Your task to perform on an android device: When is my next meeting? Image 0: 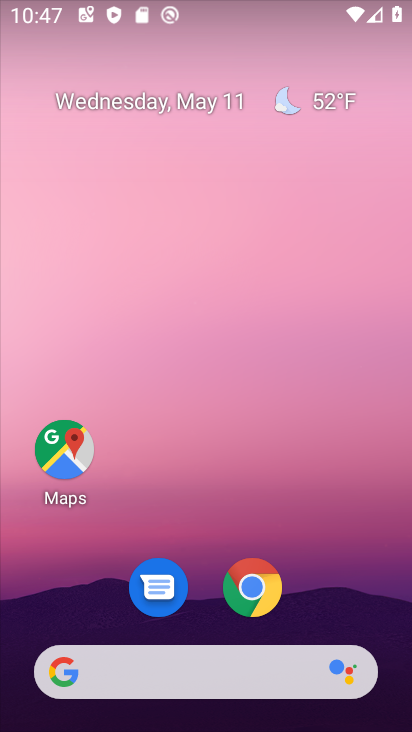
Step 0: drag from (210, 702) to (282, 262)
Your task to perform on an android device: When is my next meeting? Image 1: 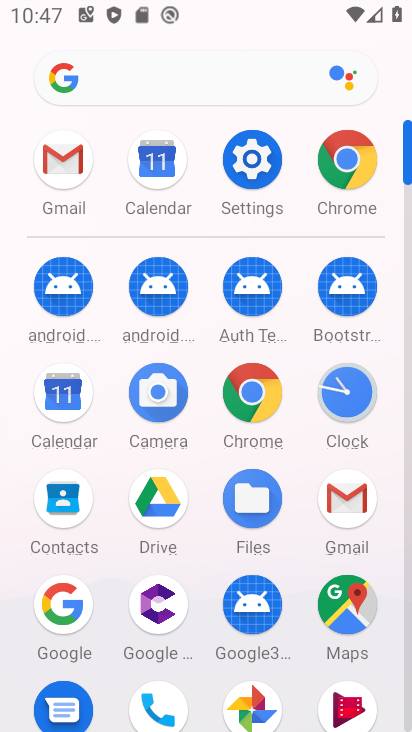
Step 1: click (69, 396)
Your task to perform on an android device: When is my next meeting? Image 2: 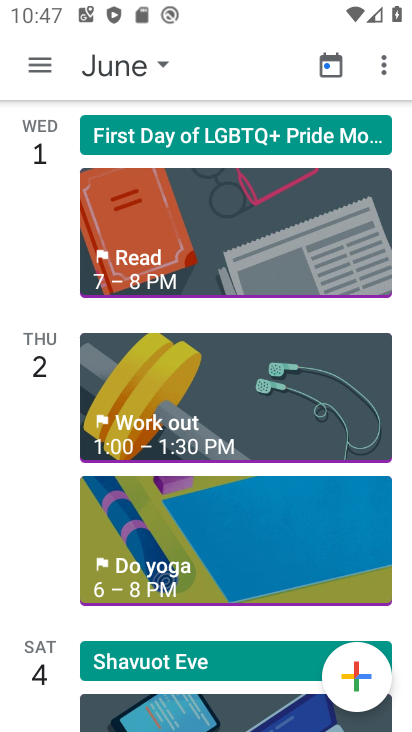
Step 2: click (43, 75)
Your task to perform on an android device: When is my next meeting? Image 3: 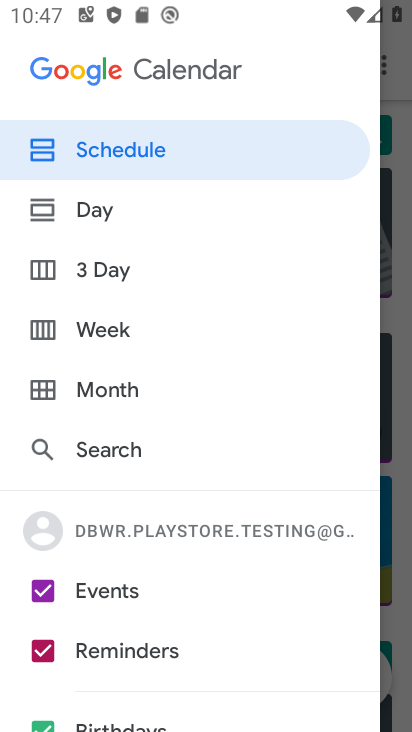
Step 3: click (124, 388)
Your task to perform on an android device: When is my next meeting? Image 4: 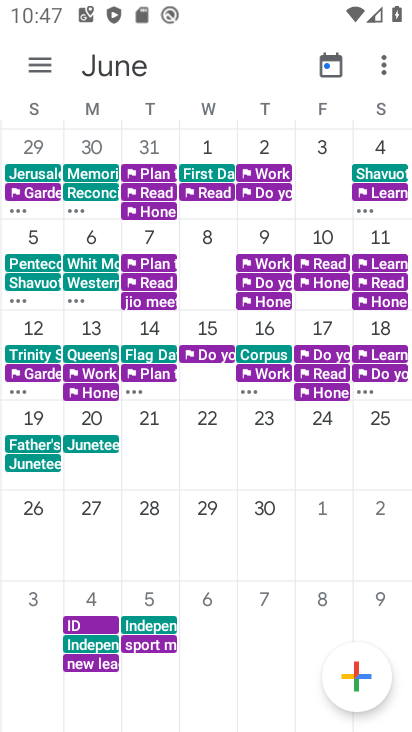
Step 4: drag from (27, 329) to (405, 223)
Your task to perform on an android device: When is my next meeting? Image 5: 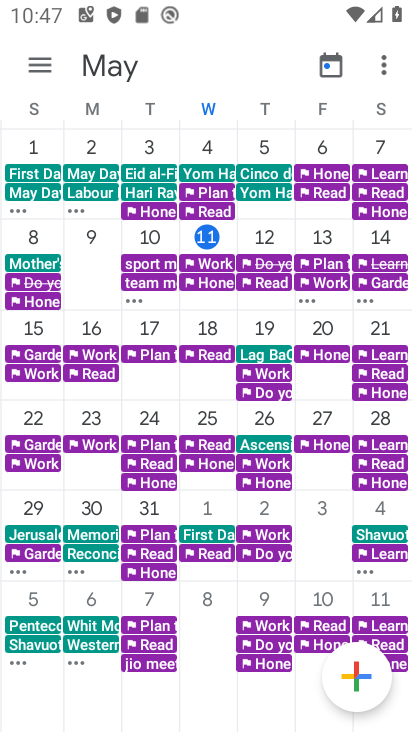
Step 5: click (214, 235)
Your task to perform on an android device: When is my next meeting? Image 6: 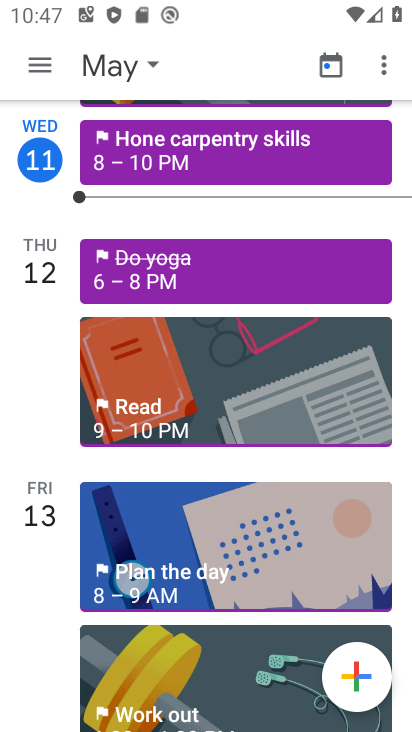
Step 6: task complete